Your task to perform on an android device: Open Chrome and go to settings Image 0: 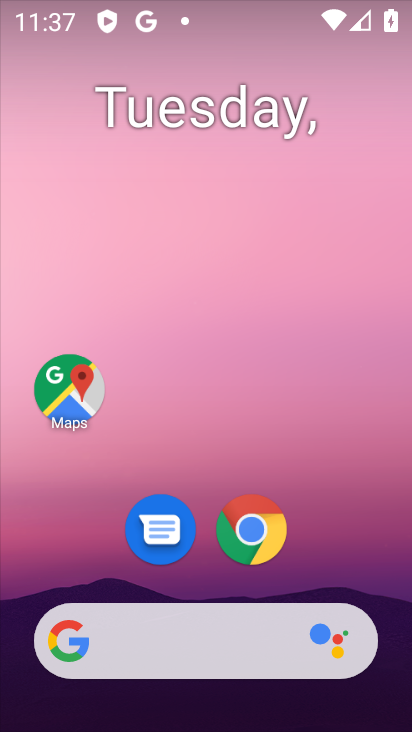
Step 0: click (264, 538)
Your task to perform on an android device: Open Chrome and go to settings Image 1: 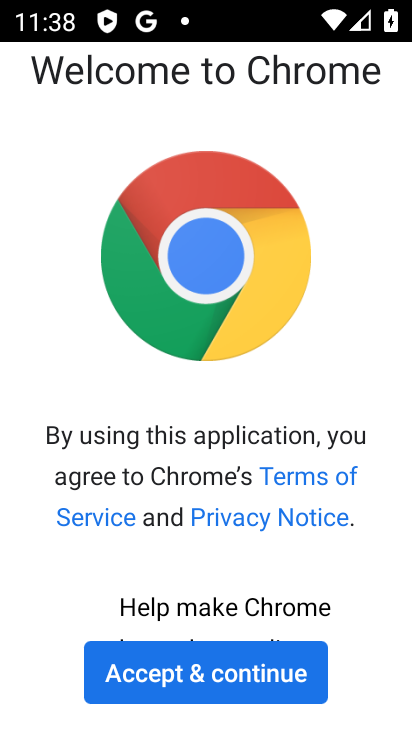
Step 1: click (242, 648)
Your task to perform on an android device: Open Chrome and go to settings Image 2: 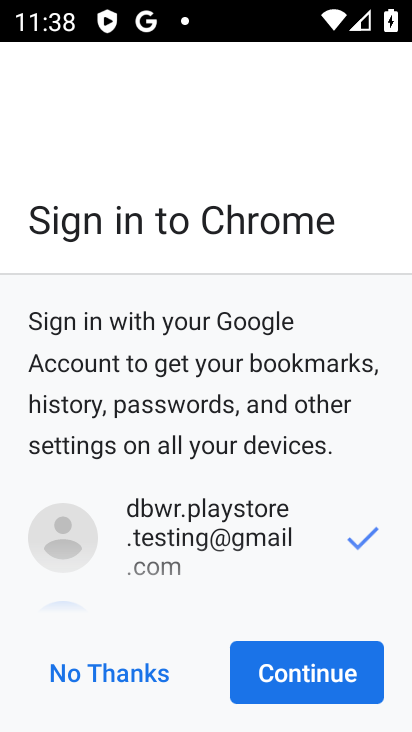
Step 2: click (349, 681)
Your task to perform on an android device: Open Chrome and go to settings Image 3: 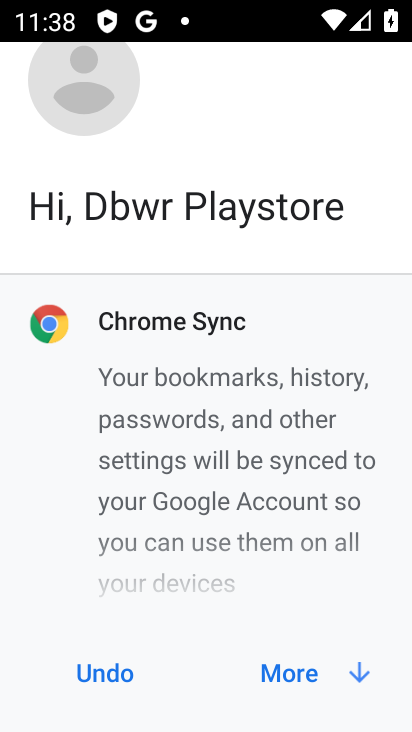
Step 3: click (348, 681)
Your task to perform on an android device: Open Chrome and go to settings Image 4: 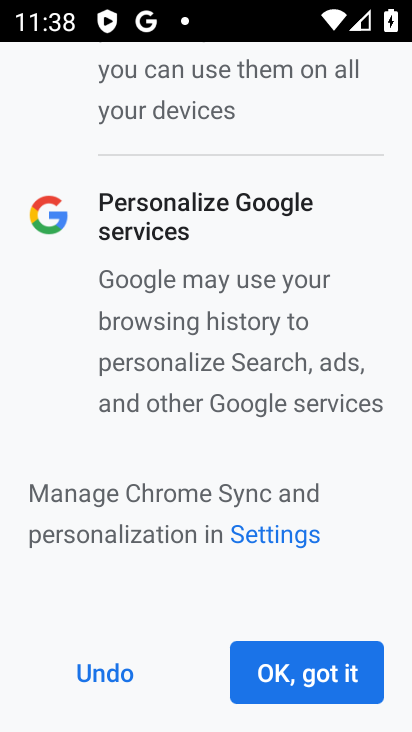
Step 4: click (347, 682)
Your task to perform on an android device: Open Chrome and go to settings Image 5: 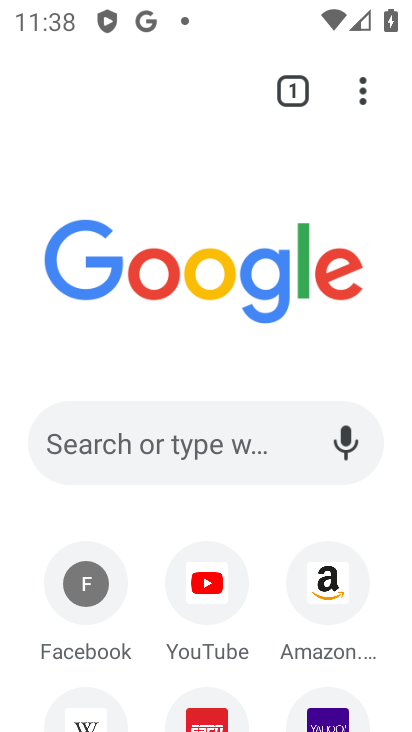
Step 5: task complete